Your task to perform on an android device: What's the weather today? Image 0: 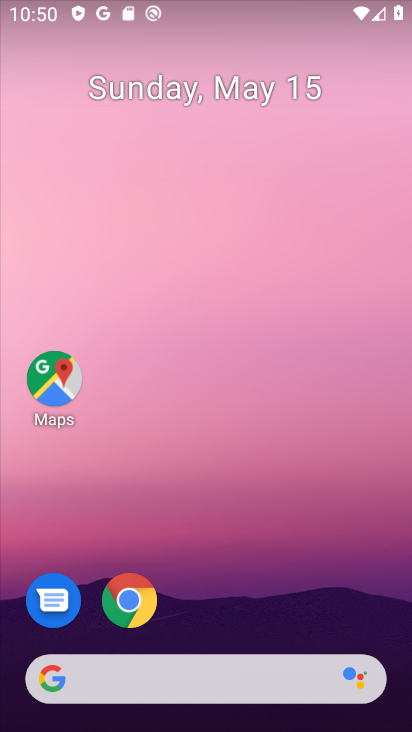
Step 0: press home button
Your task to perform on an android device: What's the weather today? Image 1: 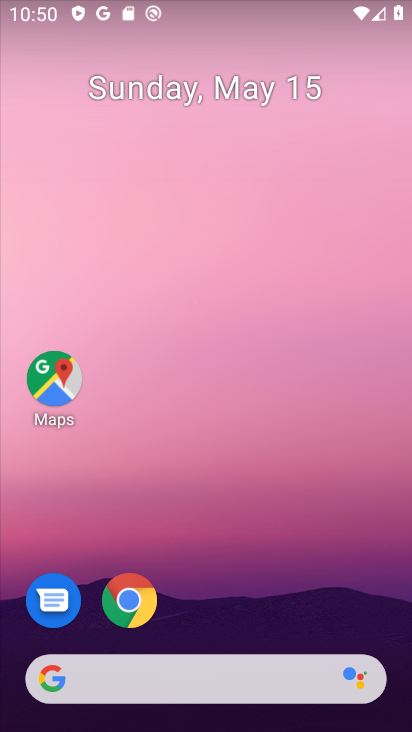
Step 1: click (397, 491)
Your task to perform on an android device: What's the weather today? Image 2: 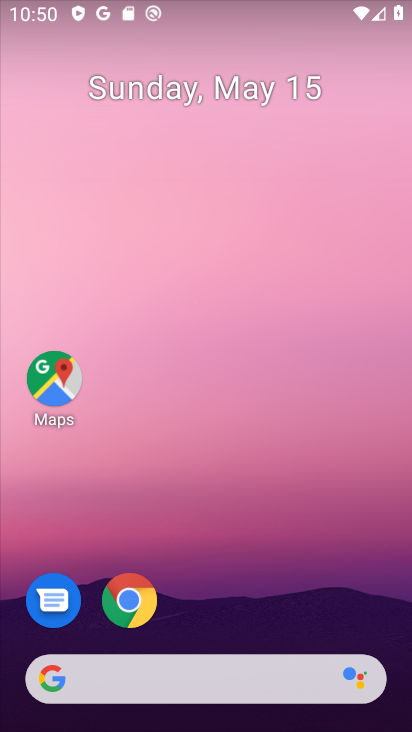
Step 2: click (219, 664)
Your task to perform on an android device: What's the weather today? Image 3: 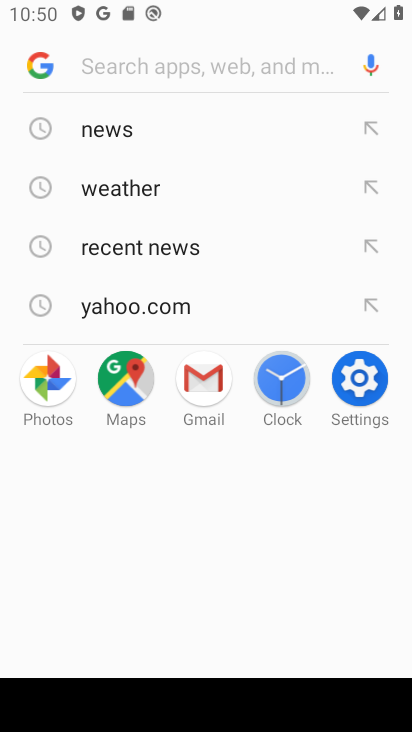
Step 3: click (137, 188)
Your task to perform on an android device: What's the weather today? Image 4: 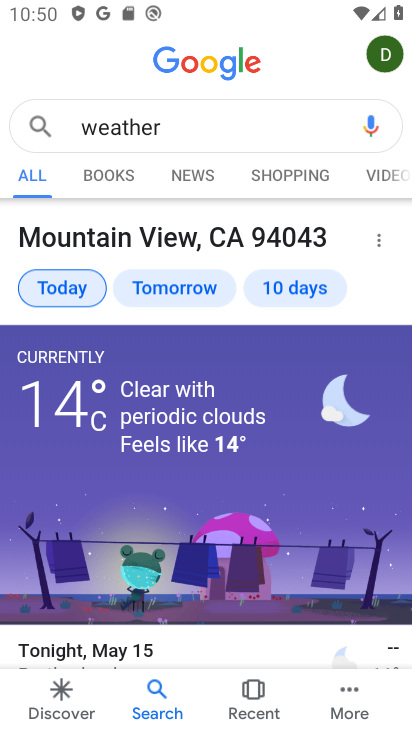
Step 4: task complete